Your task to perform on an android device: Open display settings Image 0: 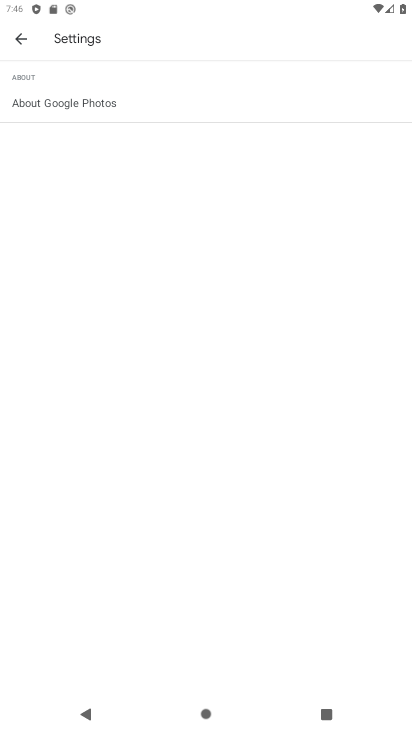
Step 0: press home button
Your task to perform on an android device: Open display settings Image 1: 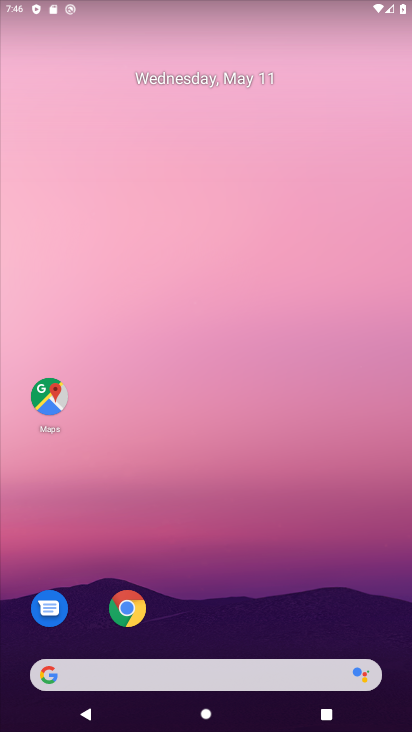
Step 1: drag from (245, 590) to (171, 88)
Your task to perform on an android device: Open display settings Image 2: 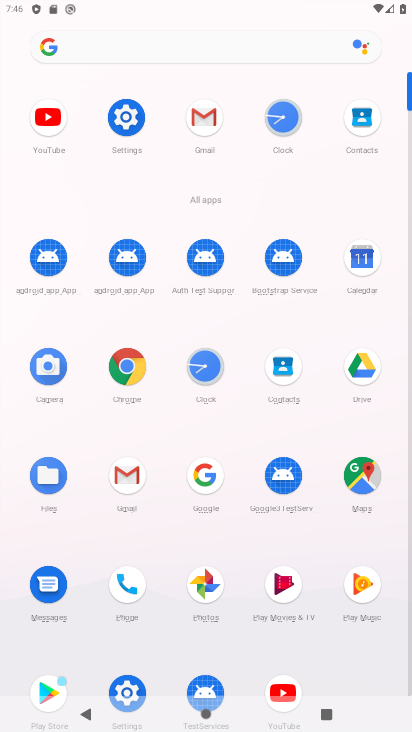
Step 2: click (126, 117)
Your task to perform on an android device: Open display settings Image 3: 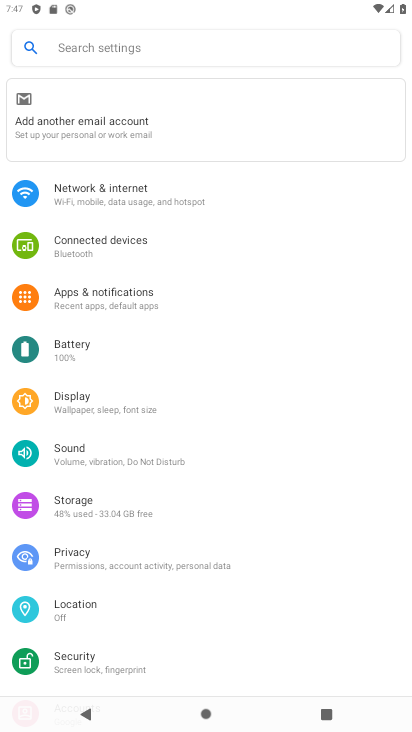
Step 3: click (156, 401)
Your task to perform on an android device: Open display settings Image 4: 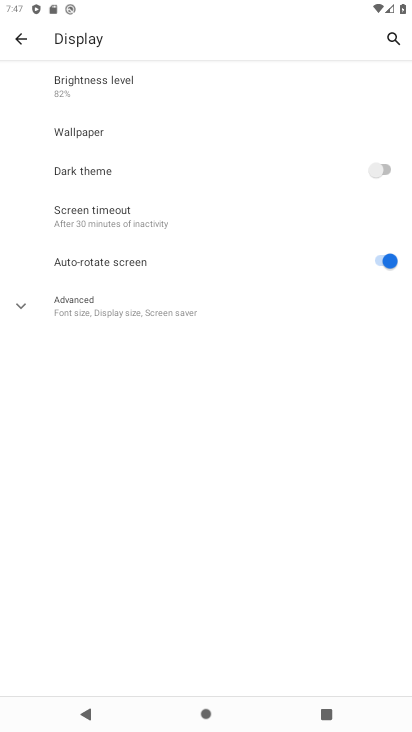
Step 4: task complete